Your task to perform on an android device: install app "Duolingo: language lessons" Image 0: 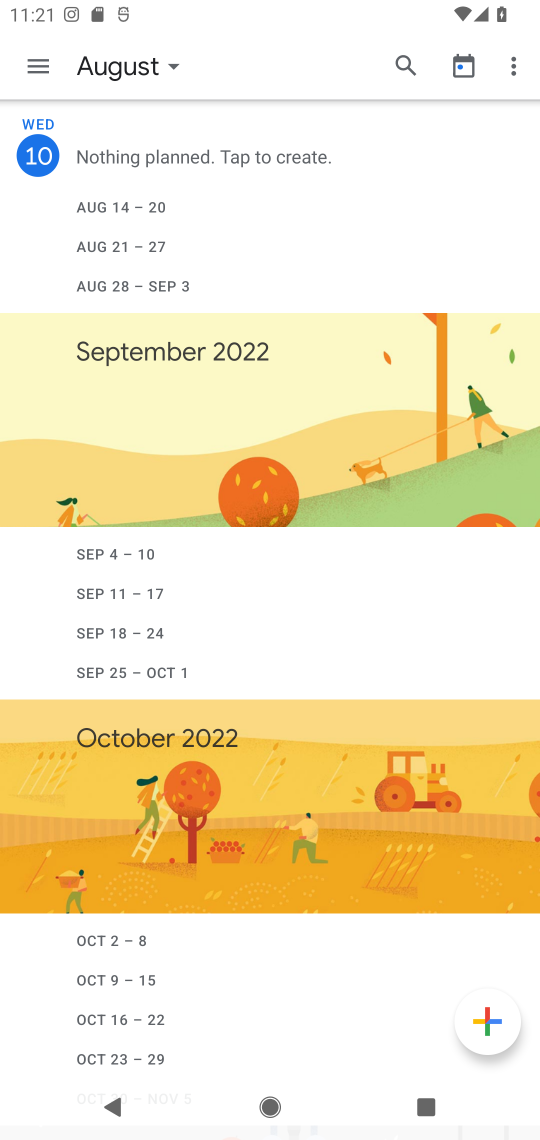
Step 0: press home button
Your task to perform on an android device: install app "Duolingo: language lessons" Image 1: 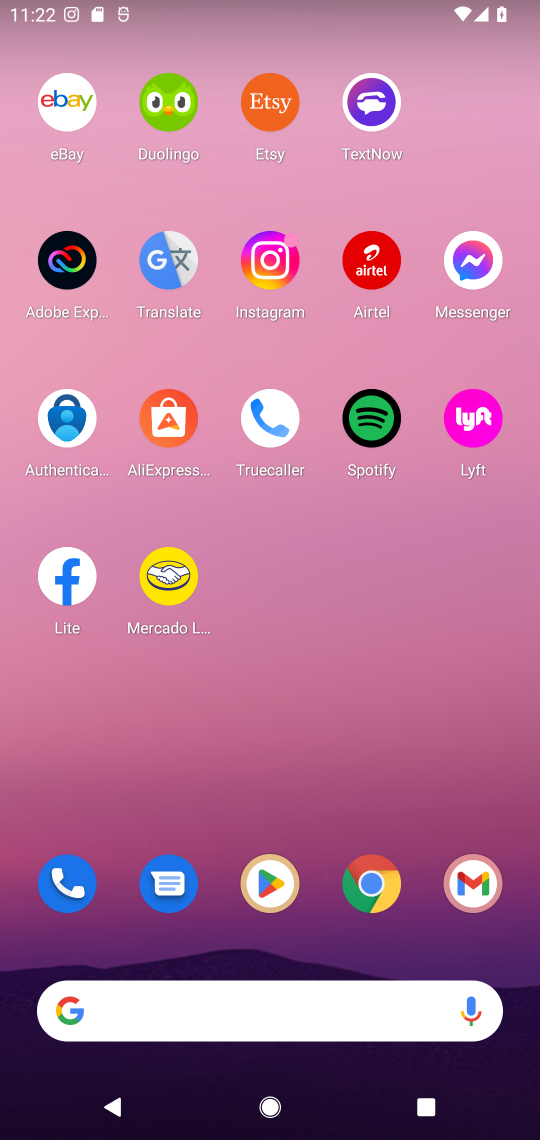
Step 1: click (272, 890)
Your task to perform on an android device: install app "Duolingo: language lessons" Image 2: 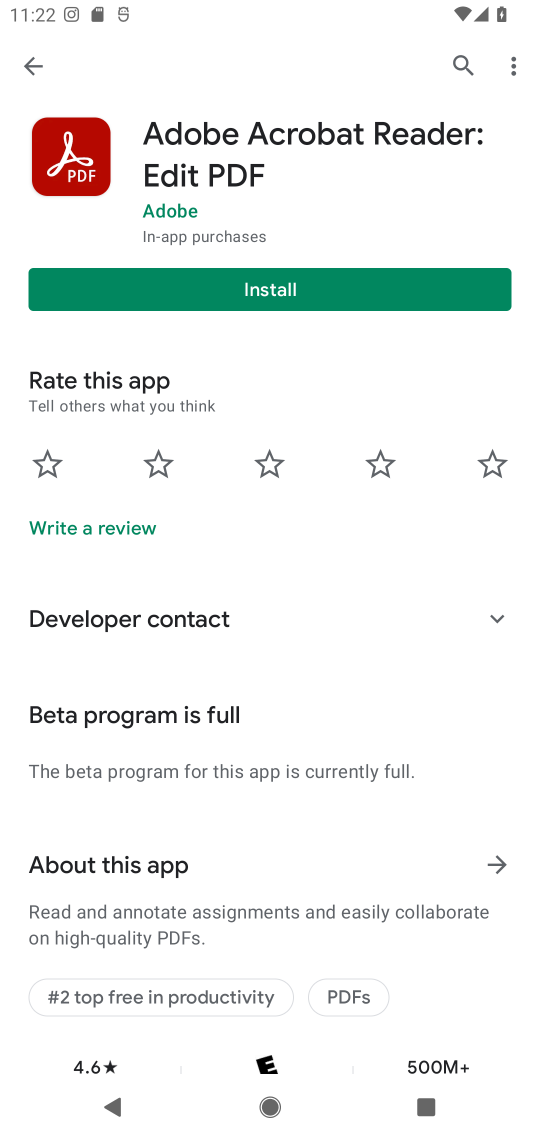
Step 2: click (458, 57)
Your task to perform on an android device: install app "Duolingo: language lessons" Image 3: 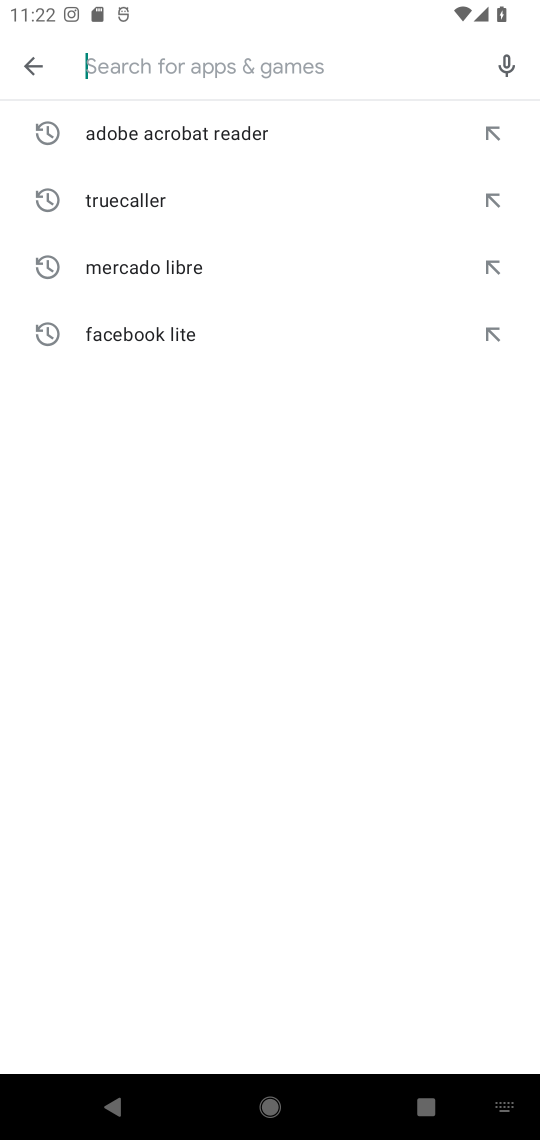
Step 3: type "Duolingo: language lessons"
Your task to perform on an android device: install app "Duolingo: language lessons" Image 4: 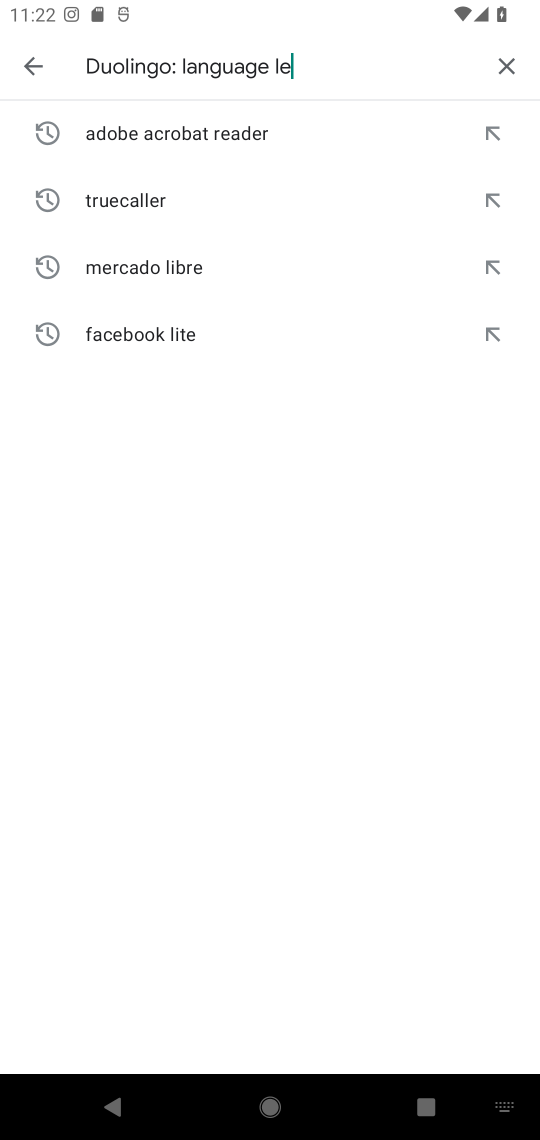
Step 4: type ""
Your task to perform on an android device: install app "Duolingo: language lessons" Image 5: 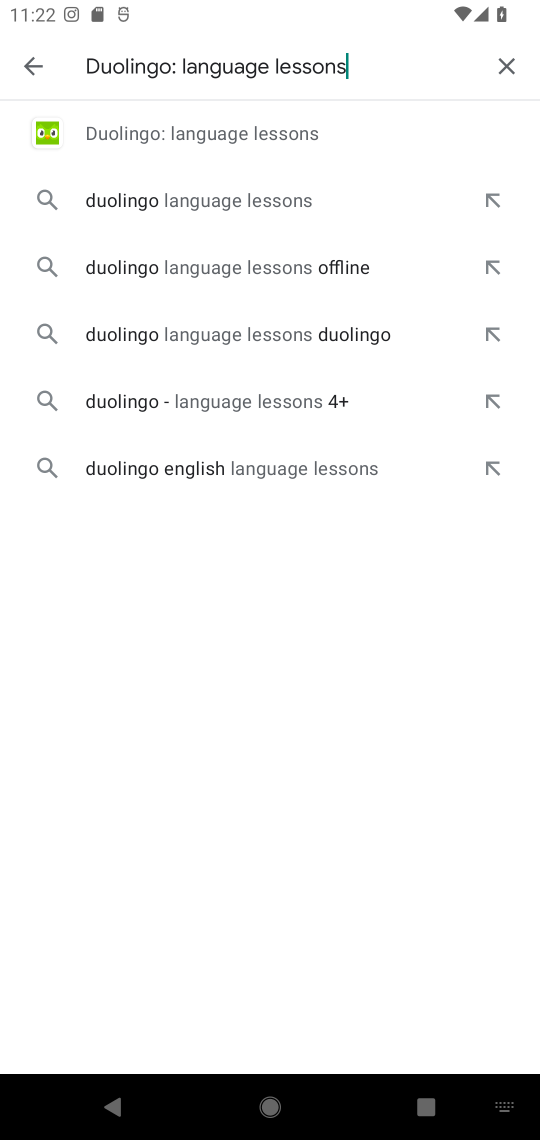
Step 5: click (284, 131)
Your task to perform on an android device: install app "Duolingo: language lessons" Image 6: 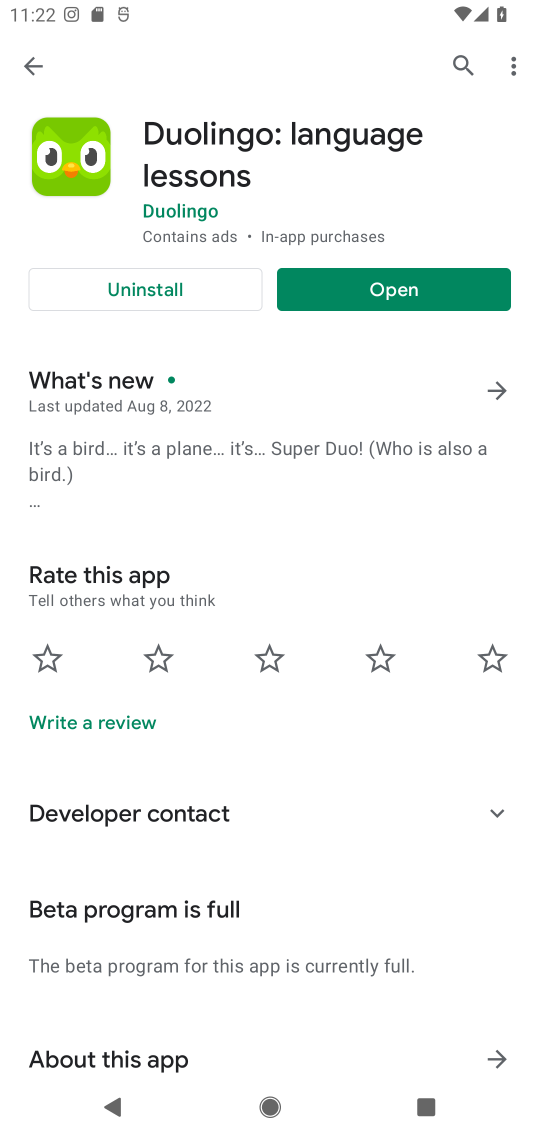
Step 6: task complete